Your task to perform on an android device: Open ESPN.com Image 0: 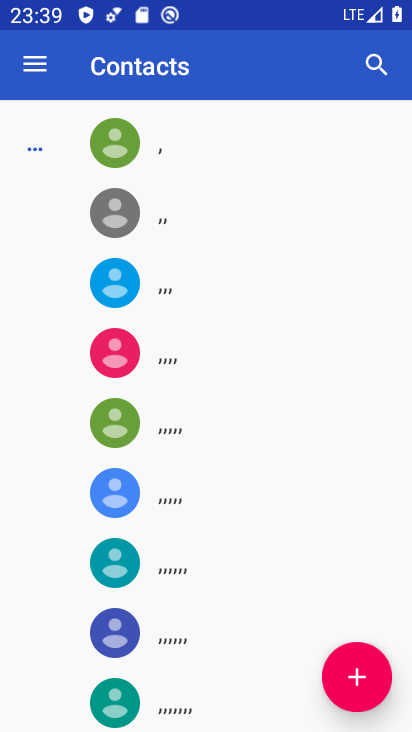
Step 0: press home button
Your task to perform on an android device: Open ESPN.com Image 1: 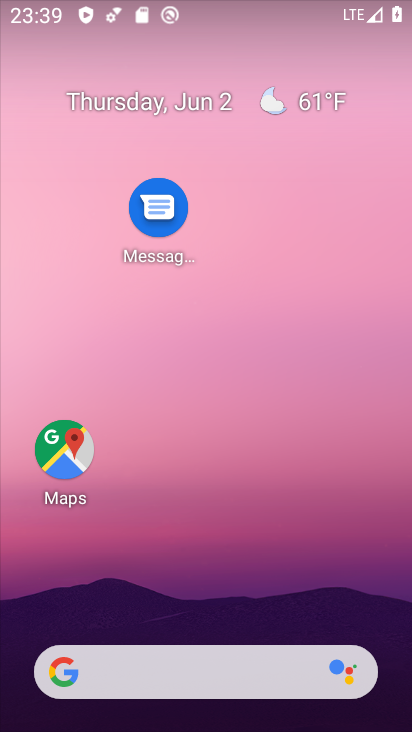
Step 1: drag from (211, 645) to (135, 15)
Your task to perform on an android device: Open ESPN.com Image 2: 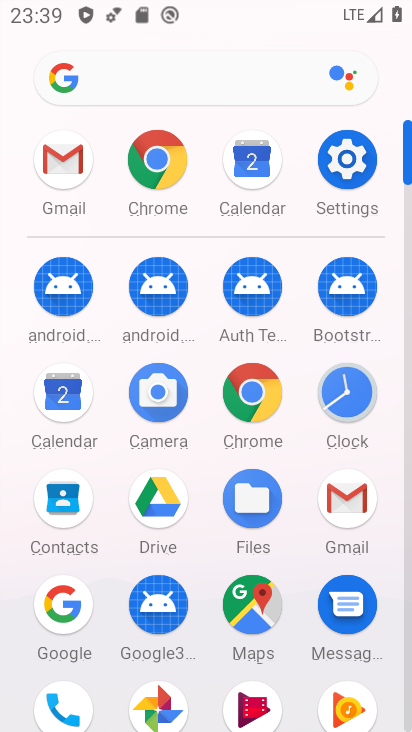
Step 2: click (255, 366)
Your task to perform on an android device: Open ESPN.com Image 3: 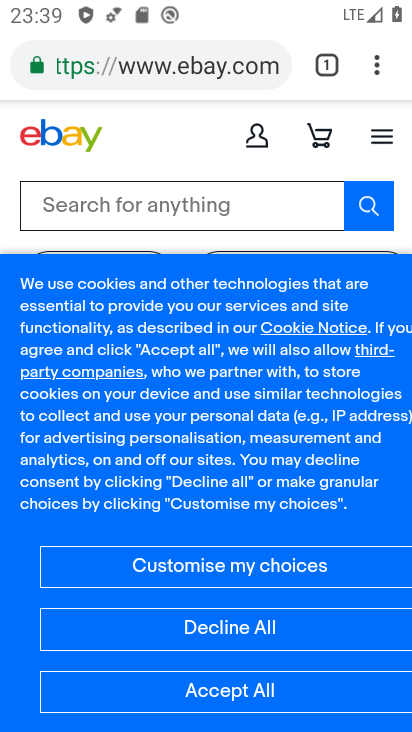
Step 3: click (326, 65)
Your task to perform on an android device: Open ESPN.com Image 4: 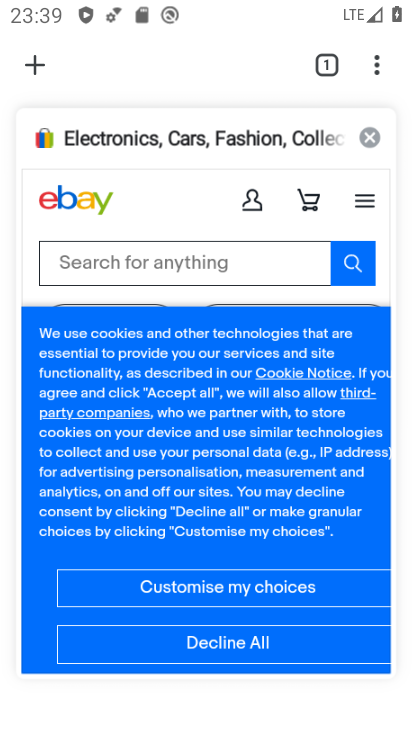
Step 4: click (33, 57)
Your task to perform on an android device: Open ESPN.com Image 5: 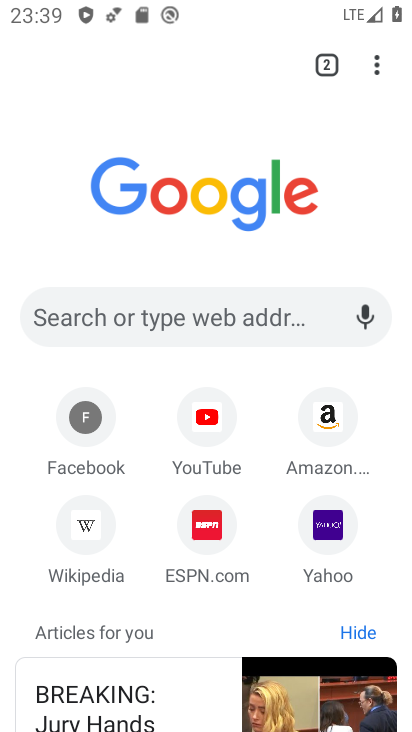
Step 5: click (198, 497)
Your task to perform on an android device: Open ESPN.com Image 6: 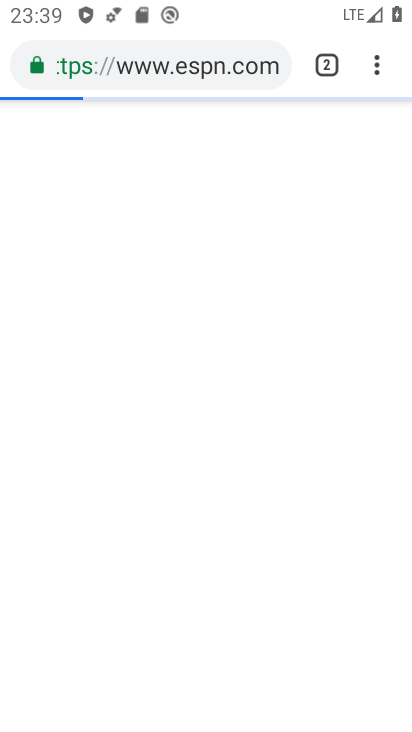
Step 6: task complete